Your task to perform on an android device: open chrome privacy settings Image 0: 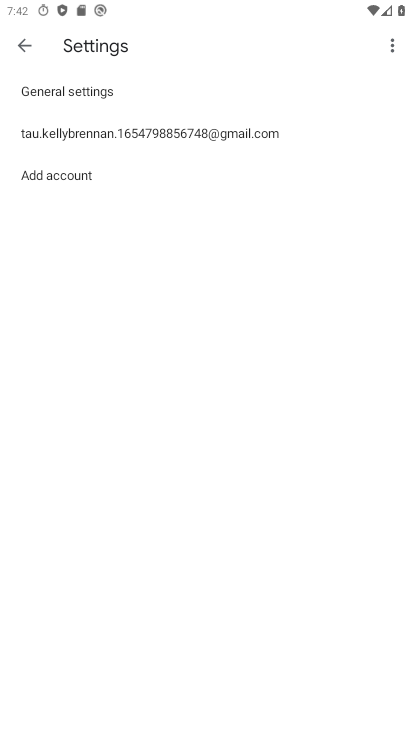
Step 0: press home button
Your task to perform on an android device: open chrome privacy settings Image 1: 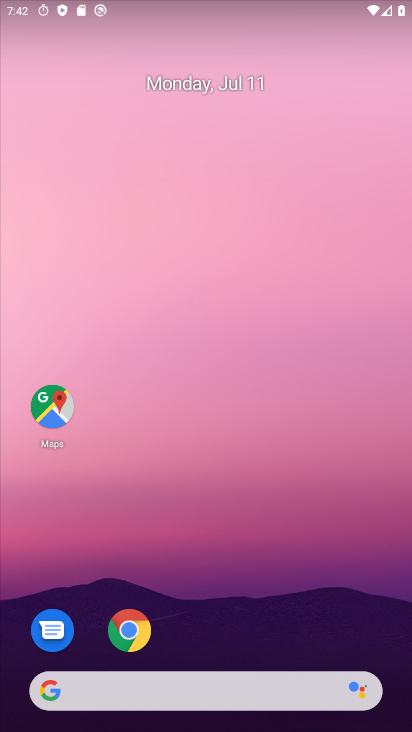
Step 1: click (137, 640)
Your task to perform on an android device: open chrome privacy settings Image 2: 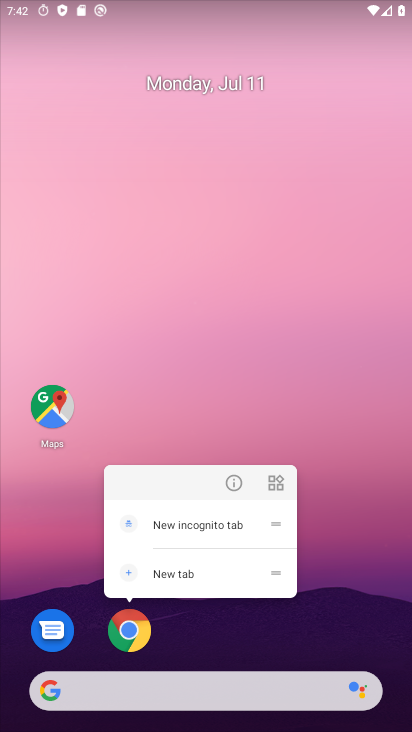
Step 2: click (118, 625)
Your task to perform on an android device: open chrome privacy settings Image 3: 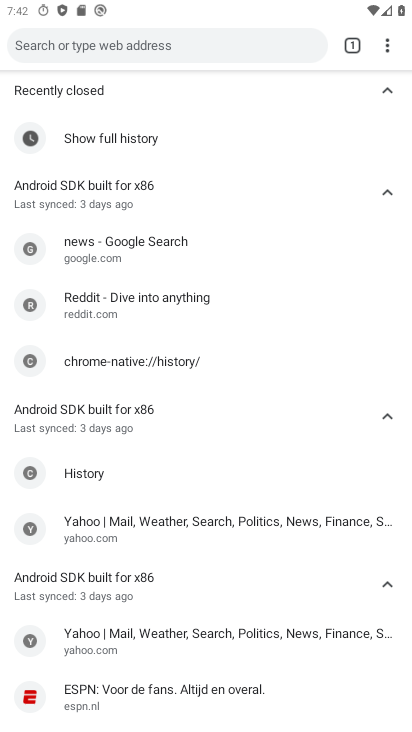
Step 3: drag from (389, 42) to (227, 378)
Your task to perform on an android device: open chrome privacy settings Image 4: 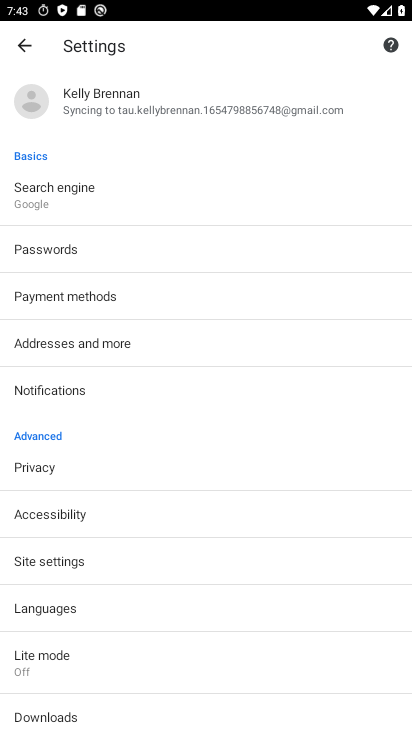
Step 4: click (32, 471)
Your task to perform on an android device: open chrome privacy settings Image 5: 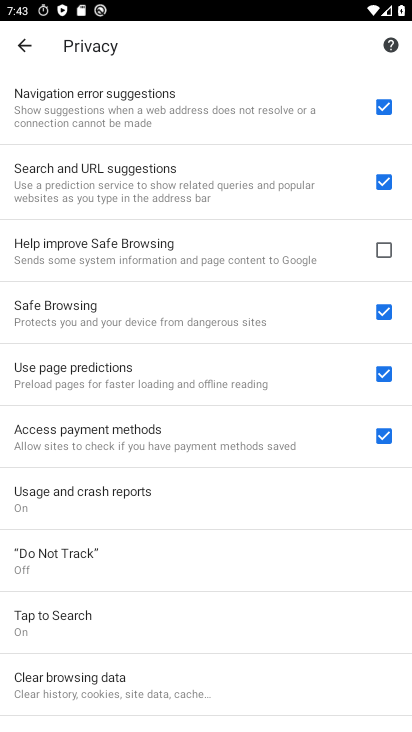
Step 5: task complete